Your task to perform on an android device: turn on the 24-hour format for clock Image 0: 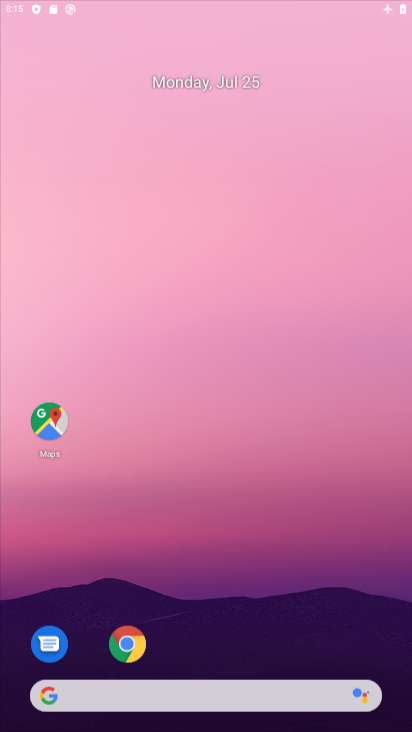
Step 0: click (226, 140)
Your task to perform on an android device: turn on the 24-hour format for clock Image 1: 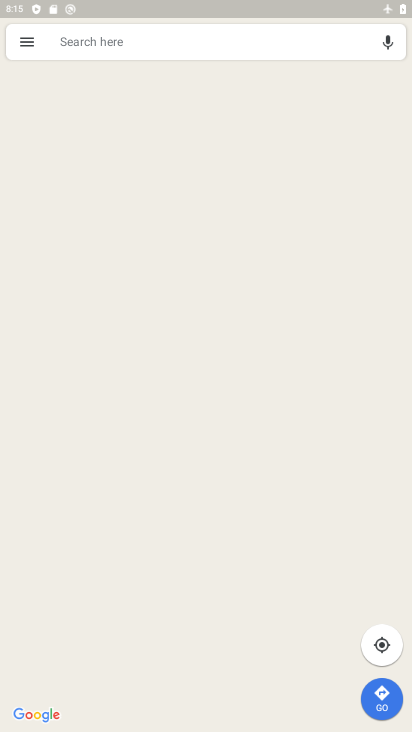
Step 1: drag from (219, 625) to (216, 201)
Your task to perform on an android device: turn on the 24-hour format for clock Image 2: 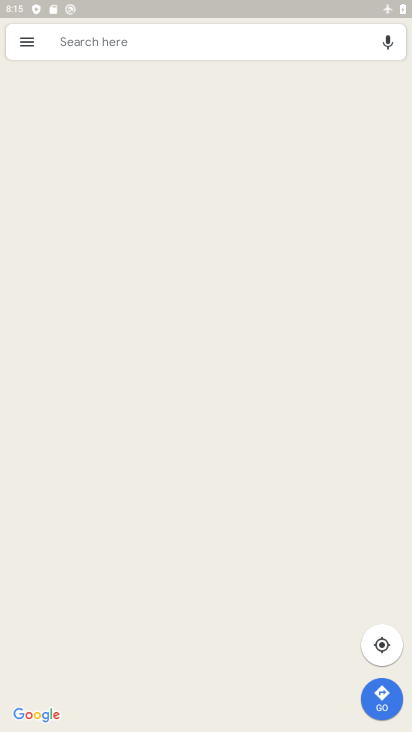
Step 2: press home button
Your task to perform on an android device: turn on the 24-hour format for clock Image 3: 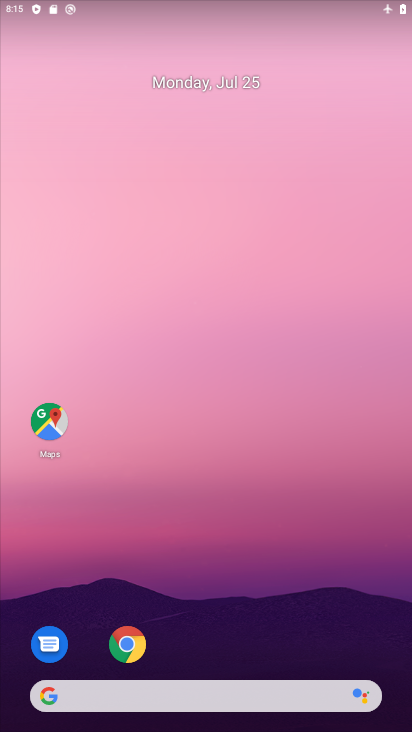
Step 3: drag from (237, 649) to (229, 258)
Your task to perform on an android device: turn on the 24-hour format for clock Image 4: 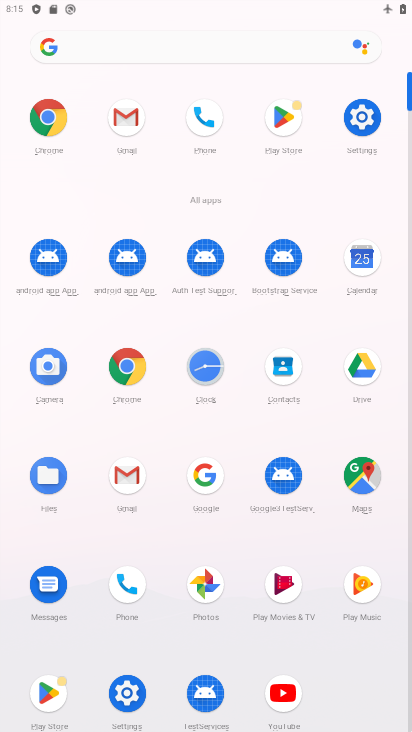
Step 4: click (205, 362)
Your task to perform on an android device: turn on the 24-hour format for clock Image 5: 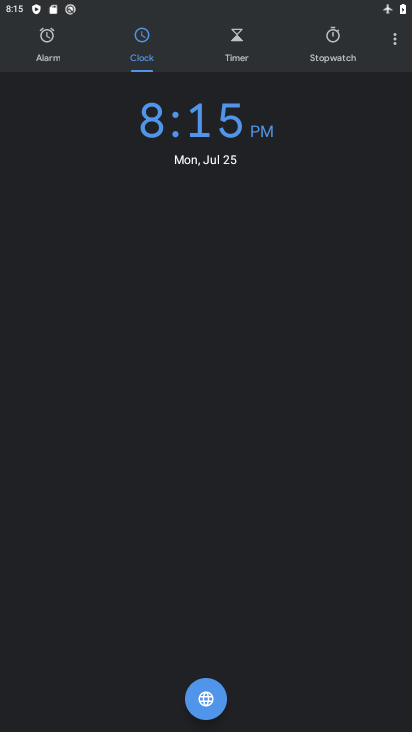
Step 5: click (401, 35)
Your task to perform on an android device: turn on the 24-hour format for clock Image 6: 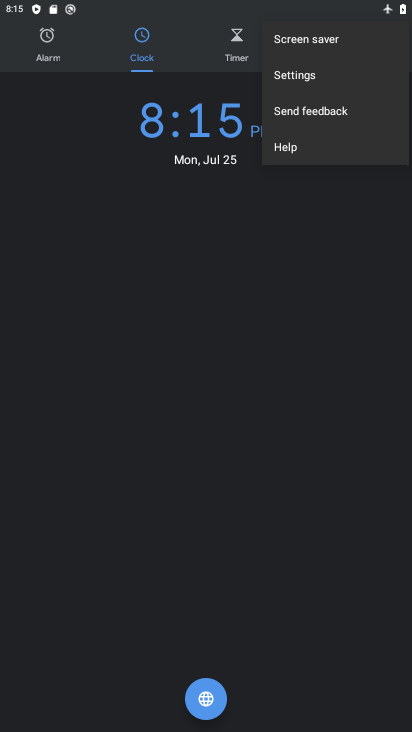
Step 6: click (303, 88)
Your task to perform on an android device: turn on the 24-hour format for clock Image 7: 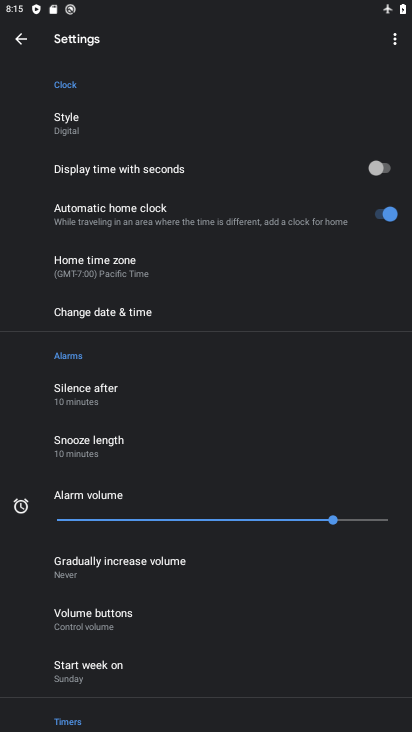
Step 7: click (139, 301)
Your task to perform on an android device: turn on the 24-hour format for clock Image 8: 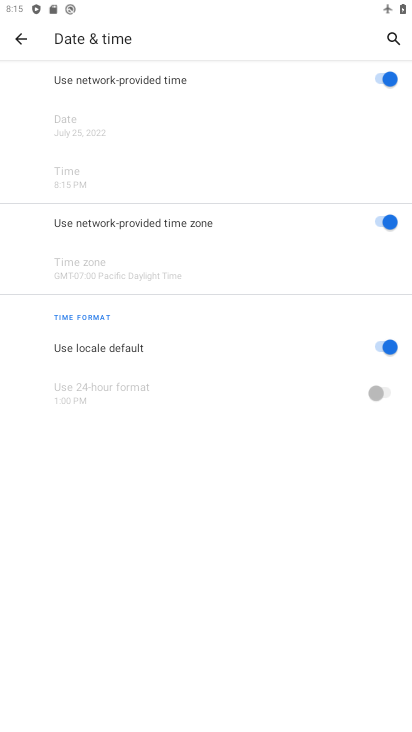
Step 8: click (388, 339)
Your task to perform on an android device: turn on the 24-hour format for clock Image 9: 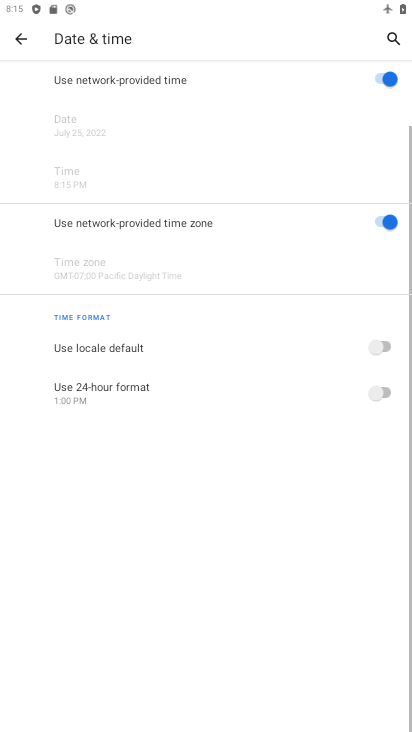
Step 9: click (388, 390)
Your task to perform on an android device: turn on the 24-hour format for clock Image 10: 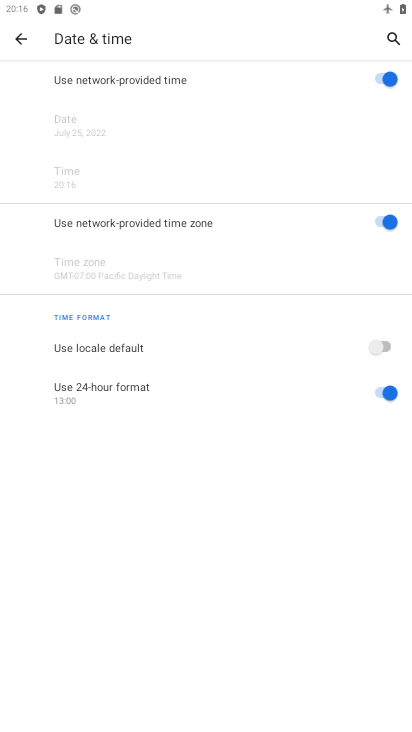
Step 10: task complete